Your task to perform on an android device: remove spam from my inbox in the gmail app Image 0: 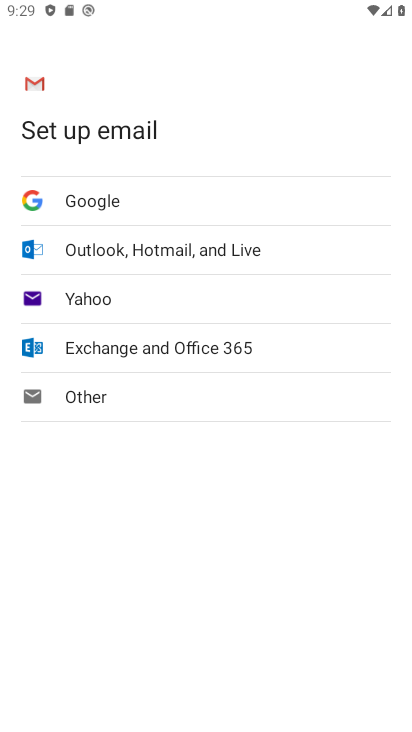
Step 0: press home button
Your task to perform on an android device: remove spam from my inbox in the gmail app Image 1: 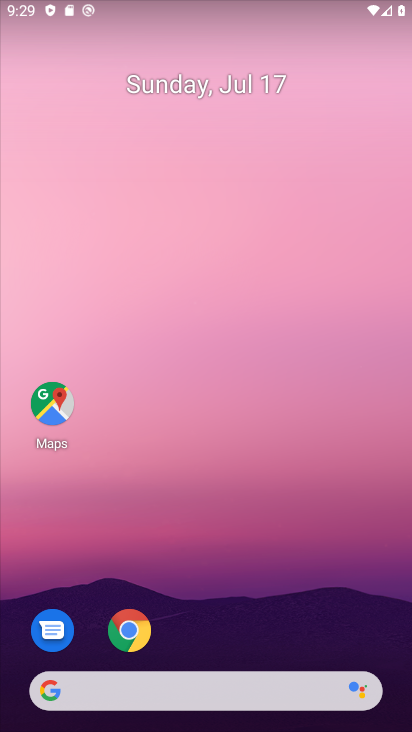
Step 1: drag from (174, 664) to (196, 165)
Your task to perform on an android device: remove spam from my inbox in the gmail app Image 2: 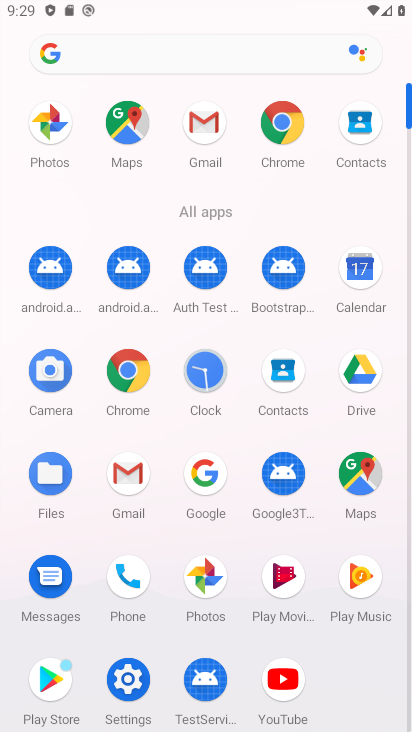
Step 2: click (133, 485)
Your task to perform on an android device: remove spam from my inbox in the gmail app Image 3: 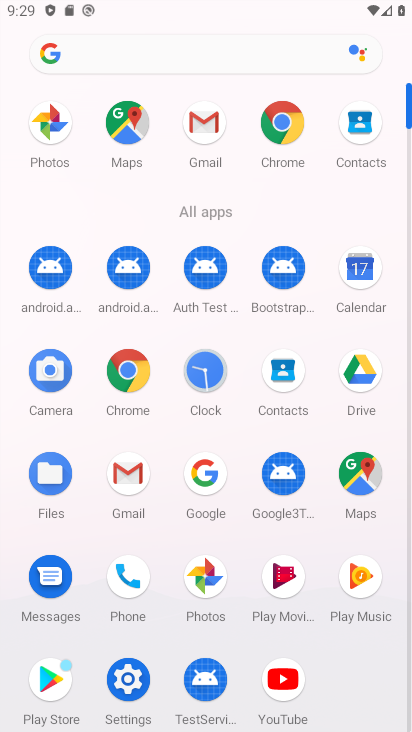
Step 3: click (133, 476)
Your task to perform on an android device: remove spam from my inbox in the gmail app Image 4: 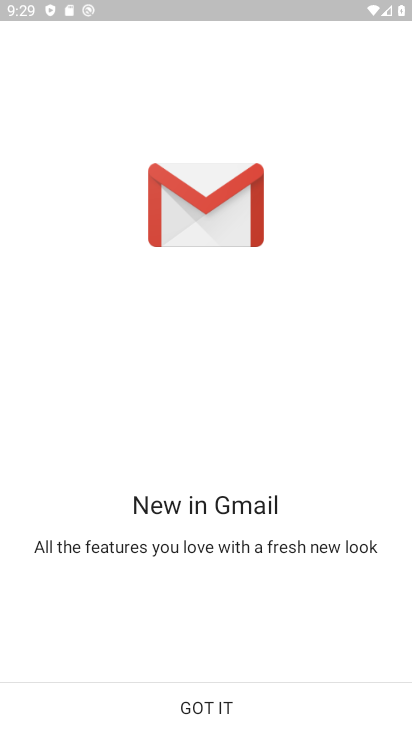
Step 4: click (216, 693)
Your task to perform on an android device: remove spam from my inbox in the gmail app Image 5: 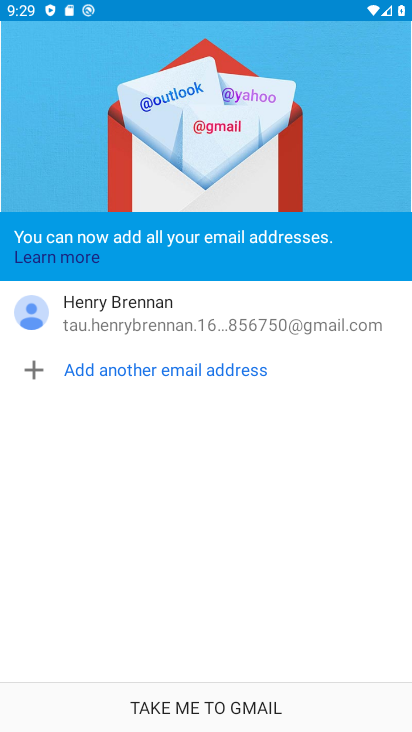
Step 5: click (234, 715)
Your task to perform on an android device: remove spam from my inbox in the gmail app Image 6: 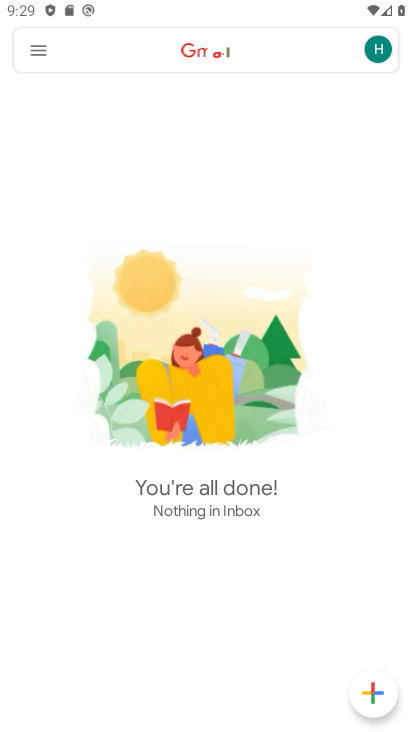
Step 6: click (47, 68)
Your task to perform on an android device: remove spam from my inbox in the gmail app Image 7: 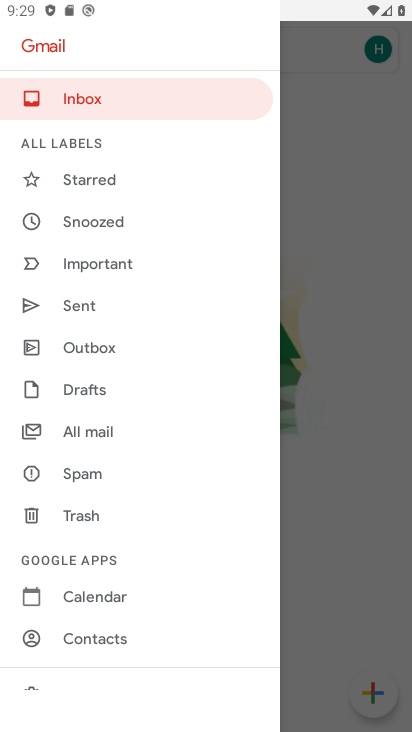
Step 7: click (89, 471)
Your task to perform on an android device: remove spam from my inbox in the gmail app Image 8: 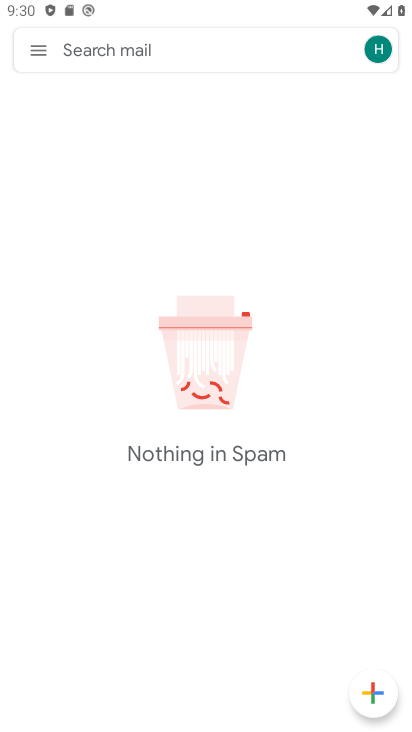
Step 8: task complete